Your task to perform on an android device: Open the map Image 0: 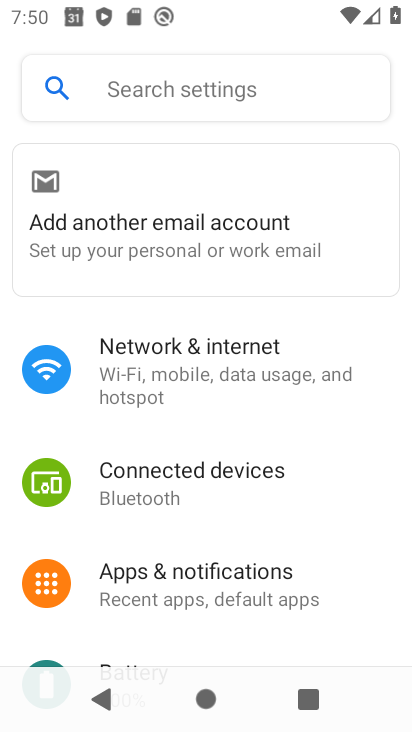
Step 0: press home button
Your task to perform on an android device: Open the map Image 1: 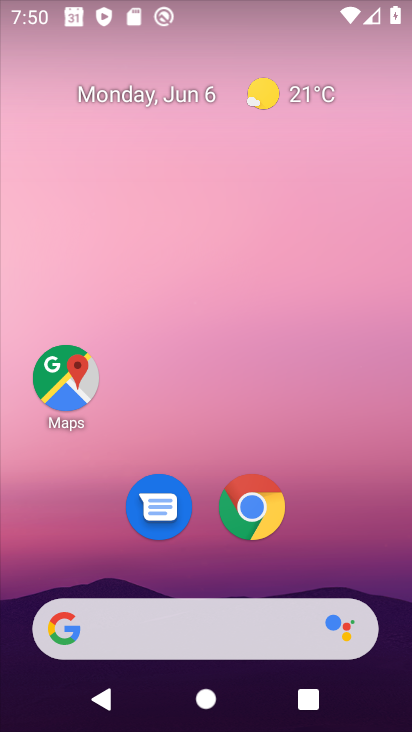
Step 1: drag from (177, 587) to (235, 186)
Your task to perform on an android device: Open the map Image 2: 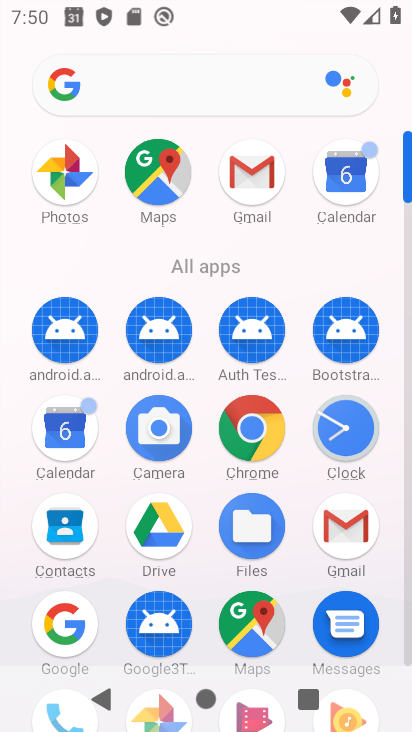
Step 2: click (141, 195)
Your task to perform on an android device: Open the map Image 3: 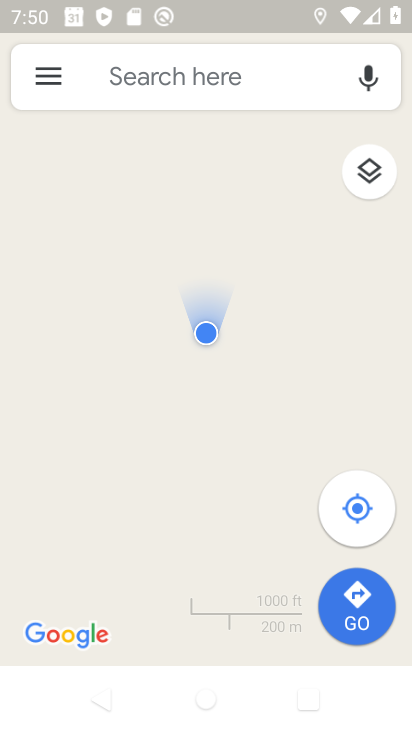
Step 3: task complete